Your task to perform on an android device: Go to internet settings Image 0: 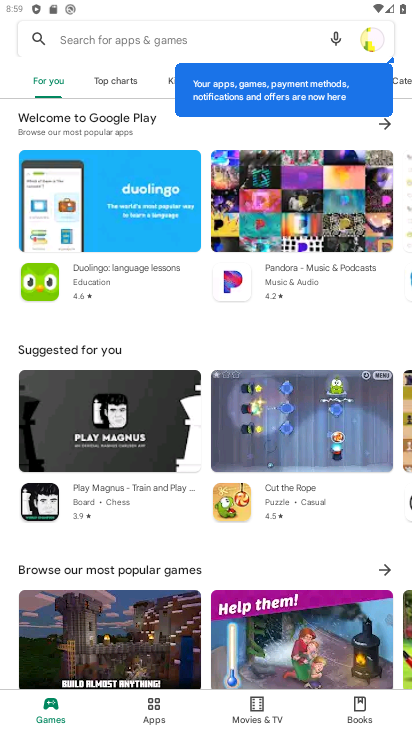
Step 0: press home button
Your task to perform on an android device: Go to internet settings Image 1: 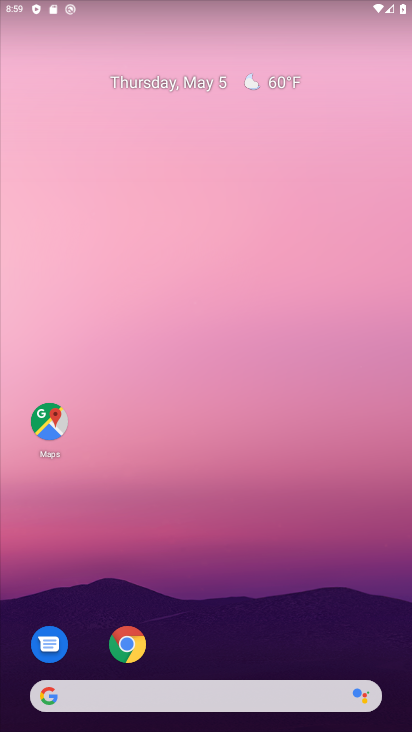
Step 1: drag from (192, 652) to (326, 214)
Your task to perform on an android device: Go to internet settings Image 2: 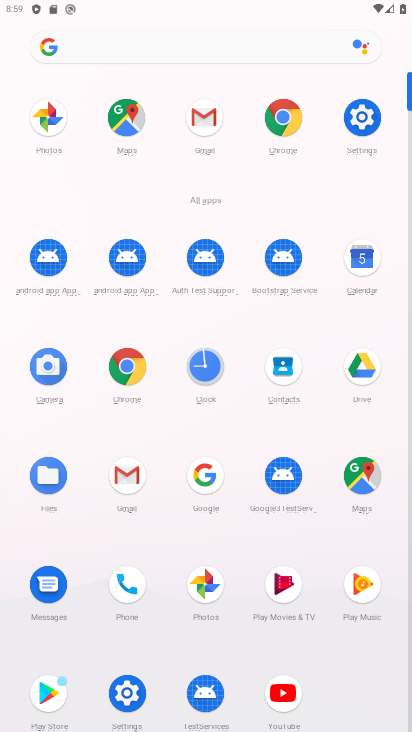
Step 2: click (355, 121)
Your task to perform on an android device: Go to internet settings Image 3: 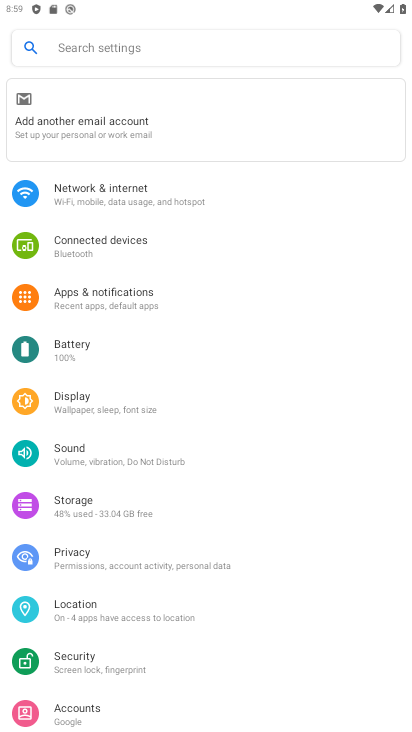
Step 3: click (155, 201)
Your task to perform on an android device: Go to internet settings Image 4: 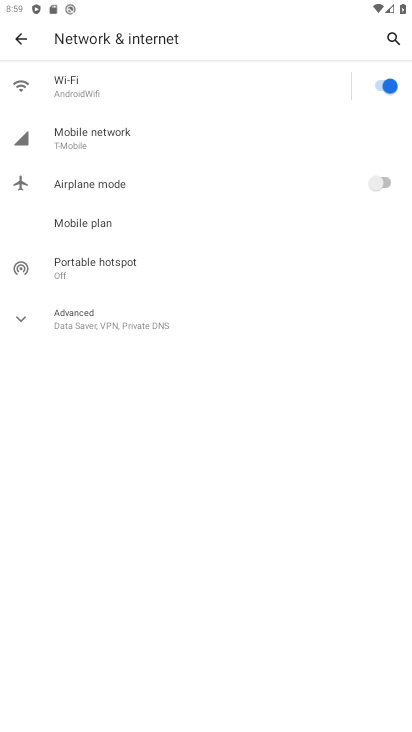
Step 4: task complete